Your task to perform on an android device: Open eBay Image 0: 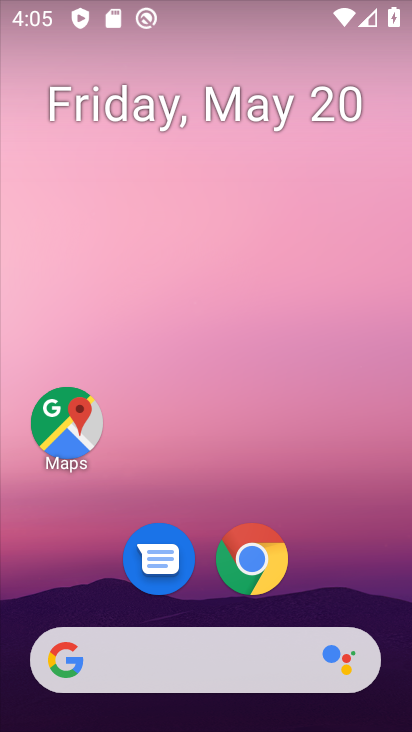
Step 0: drag from (185, 594) to (193, 219)
Your task to perform on an android device: Open eBay Image 1: 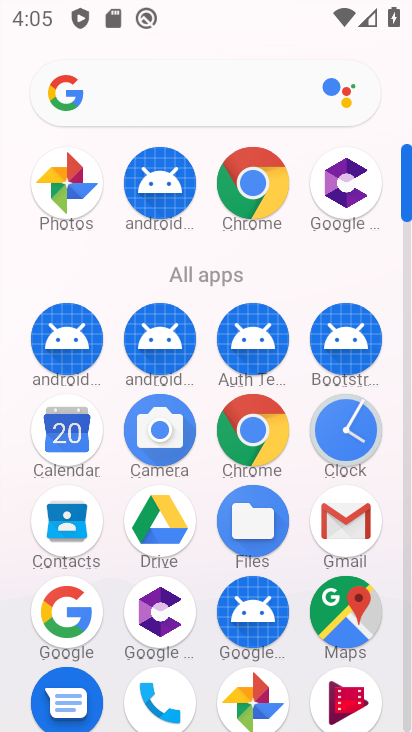
Step 1: click (80, 603)
Your task to perform on an android device: Open eBay Image 2: 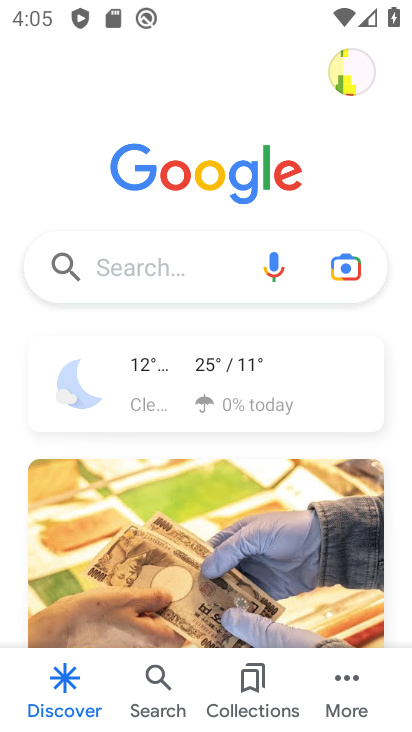
Step 2: click (119, 272)
Your task to perform on an android device: Open eBay Image 3: 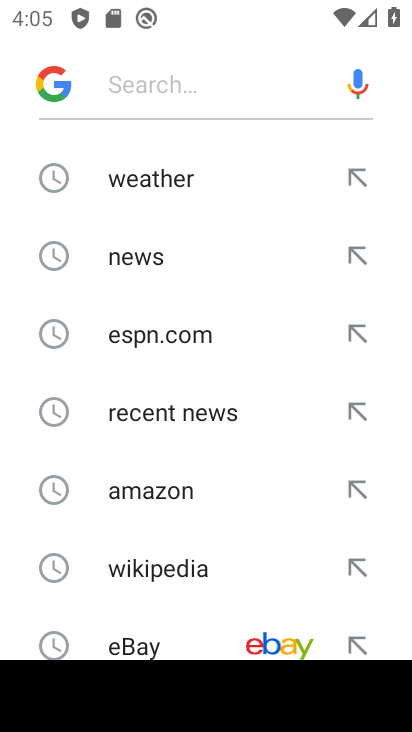
Step 3: click (266, 638)
Your task to perform on an android device: Open eBay Image 4: 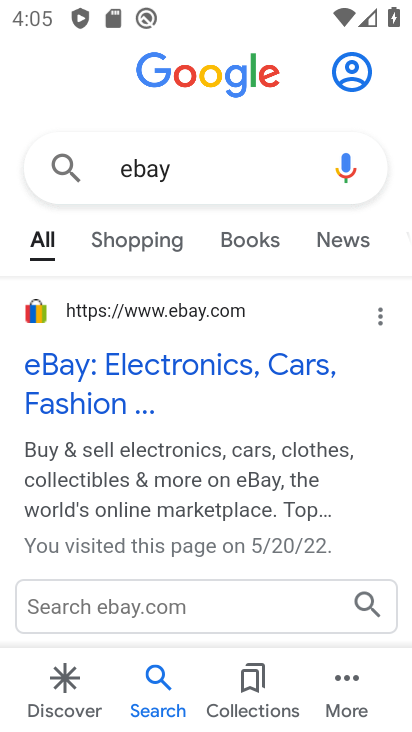
Step 4: drag from (224, 621) to (214, 302)
Your task to perform on an android device: Open eBay Image 5: 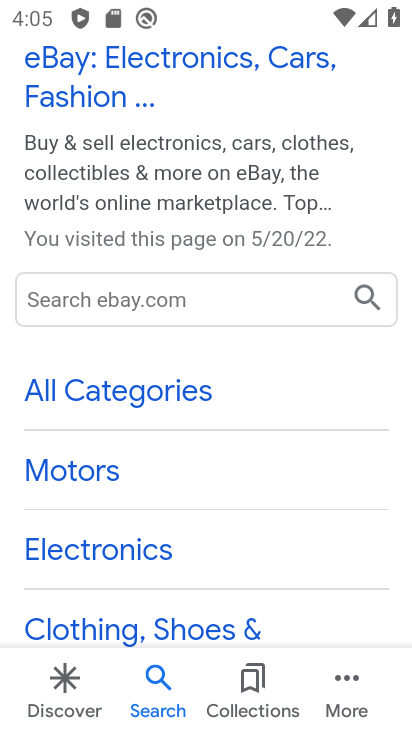
Step 5: drag from (174, 592) to (169, 167)
Your task to perform on an android device: Open eBay Image 6: 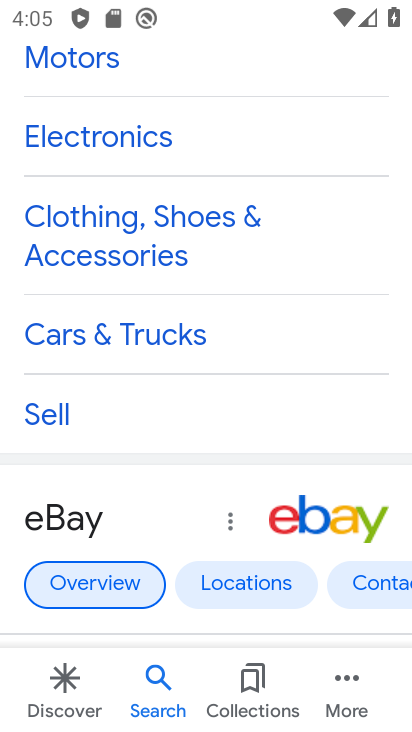
Step 6: drag from (218, 87) to (288, 536)
Your task to perform on an android device: Open eBay Image 7: 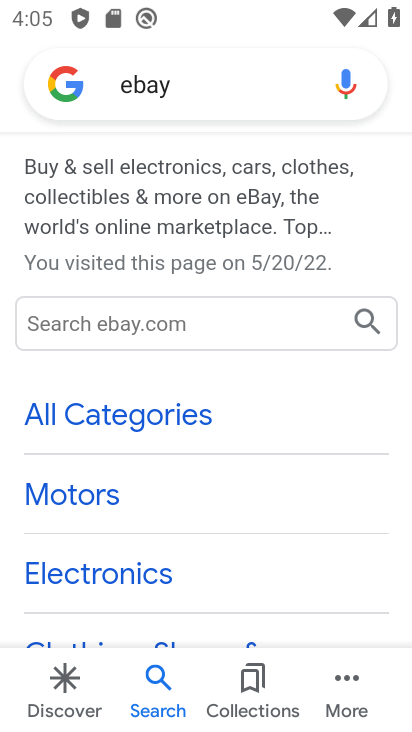
Step 7: drag from (274, 183) to (312, 676)
Your task to perform on an android device: Open eBay Image 8: 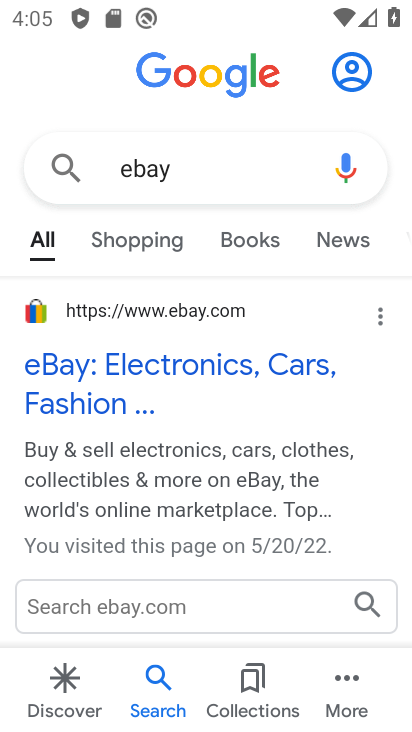
Step 8: click (179, 366)
Your task to perform on an android device: Open eBay Image 9: 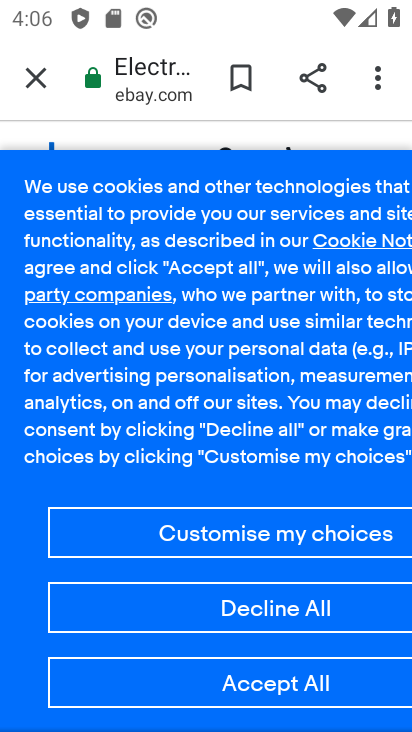
Step 9: task complete